Your task to perform on an android device: How far is the moon? Image 0: 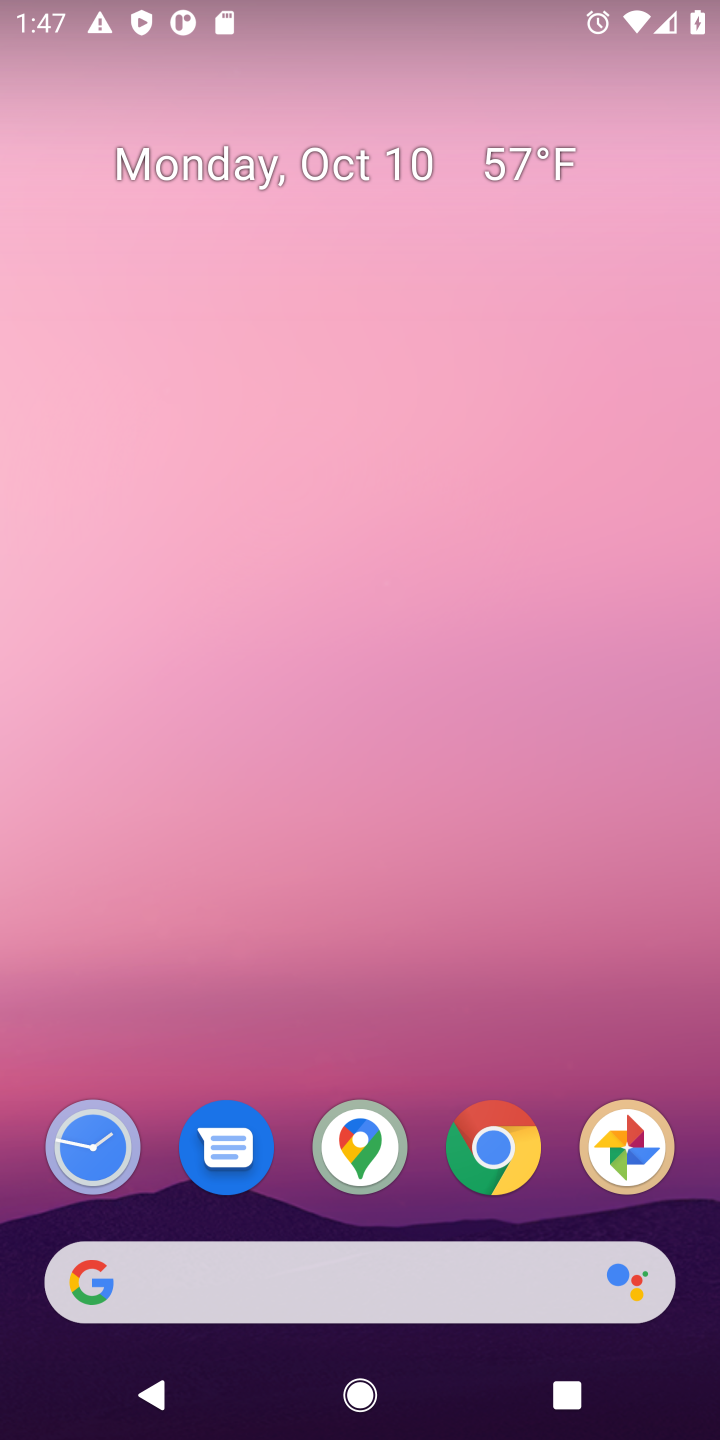
Step 0: click (390, 1267)
Your task to perform on an android device: How far is the moon? Image 1: 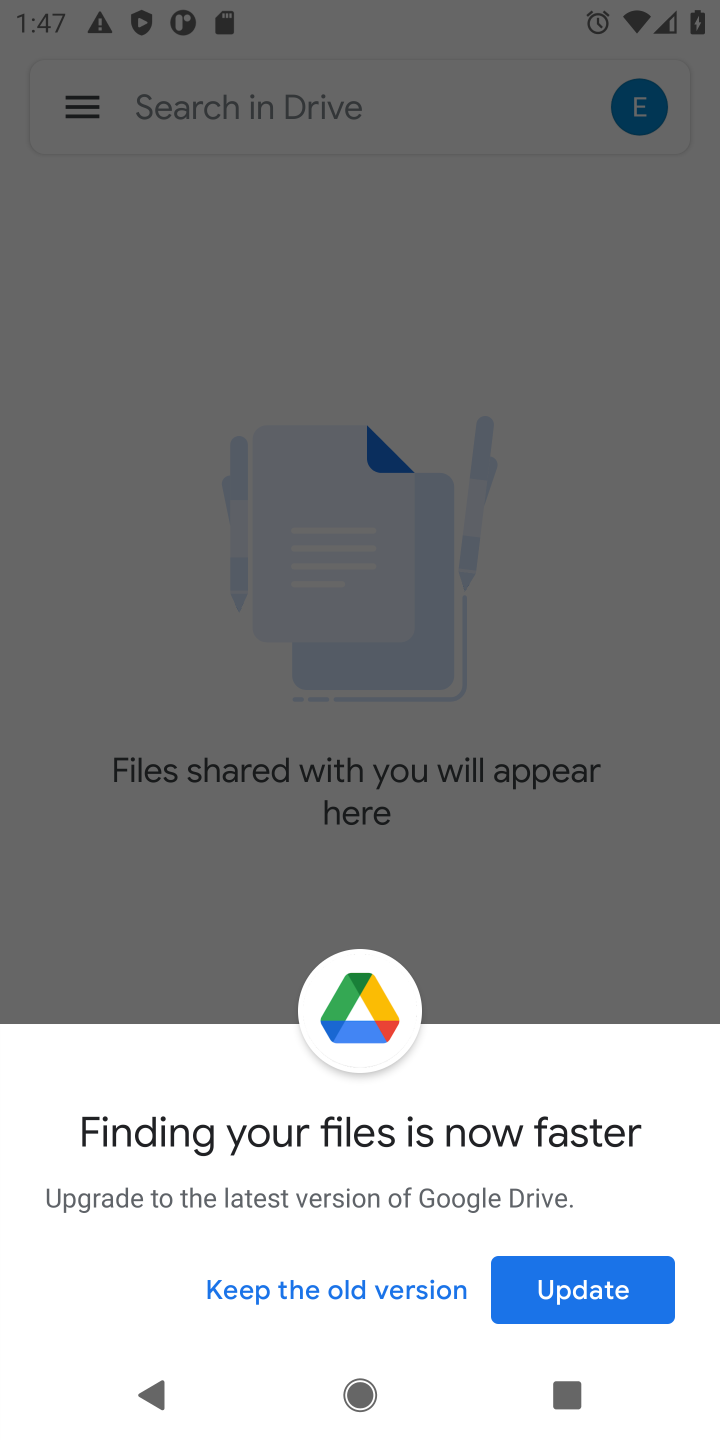
Step 1: press home button
Your task to perform on an android device: How far is the moon? Image 2: 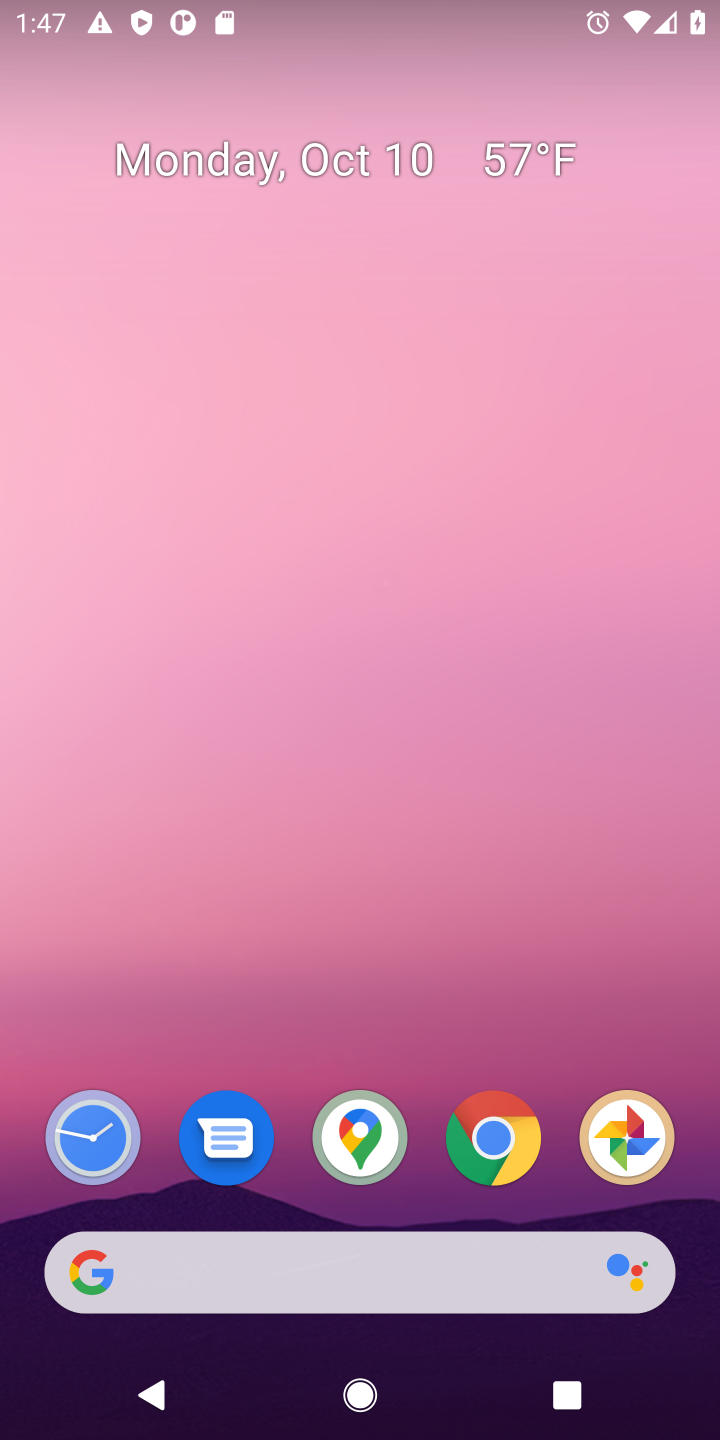
Step 2: click (325, 1278)
Your task to perform on an android device: How far is the moon? Image 3: 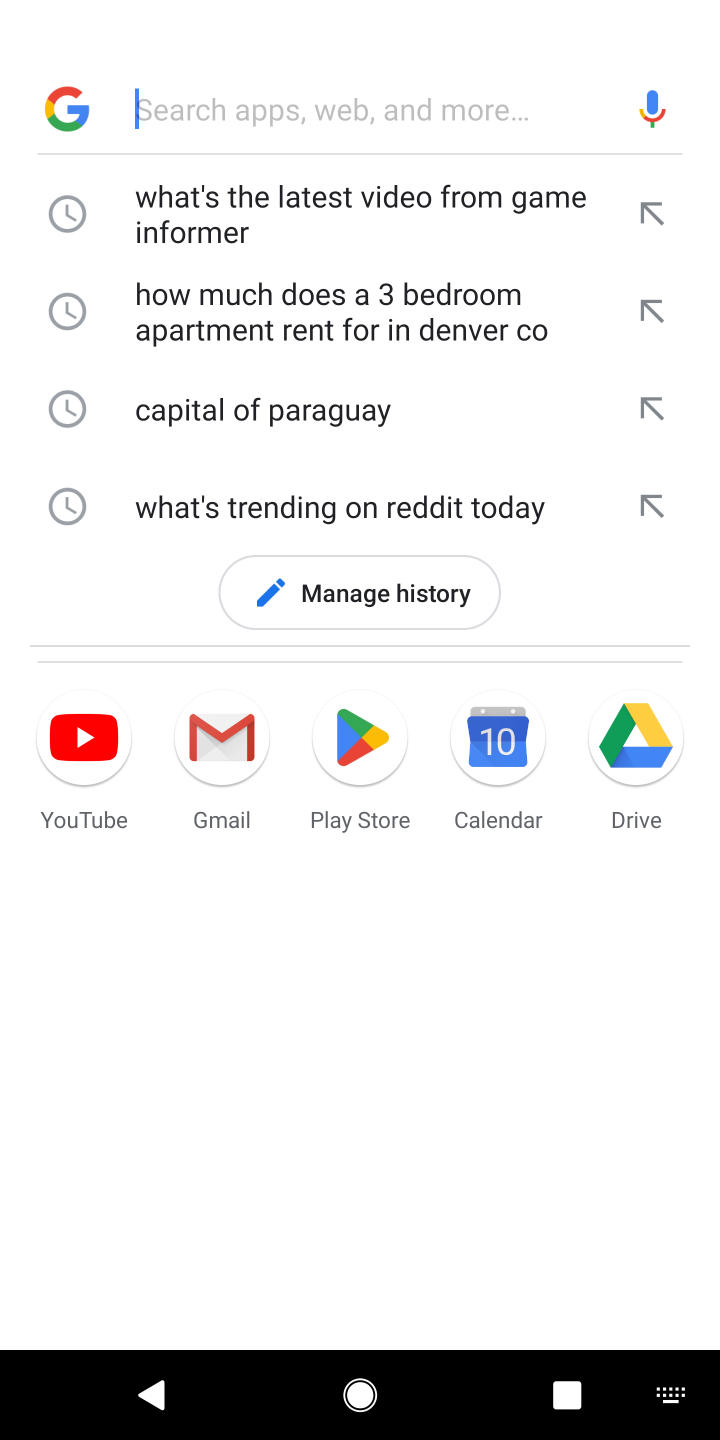
Step 3: type "how far is the moon?"
Your task to perform on an android device: How far is the moon? Image 4: 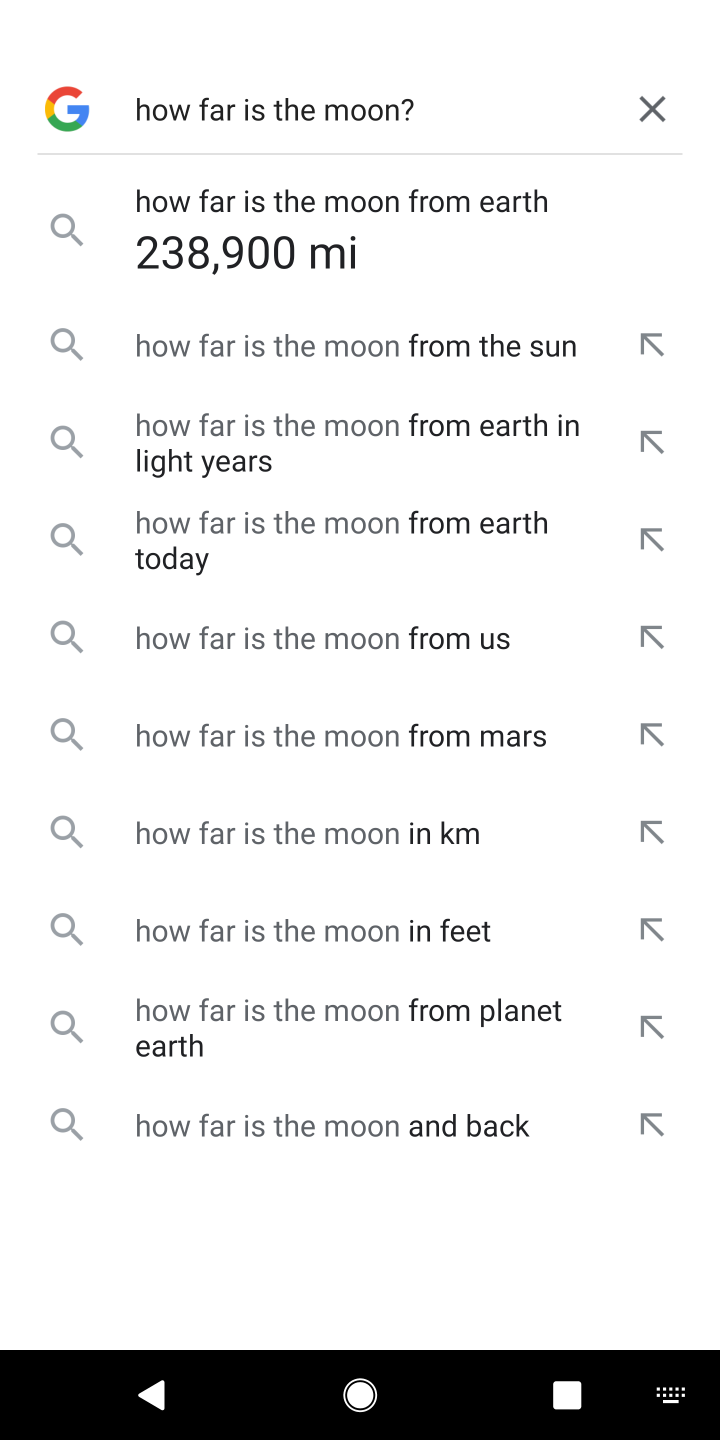
Step 4: click (276, 204)
Your task to perform on an android device: How far is the moon? Image 5: 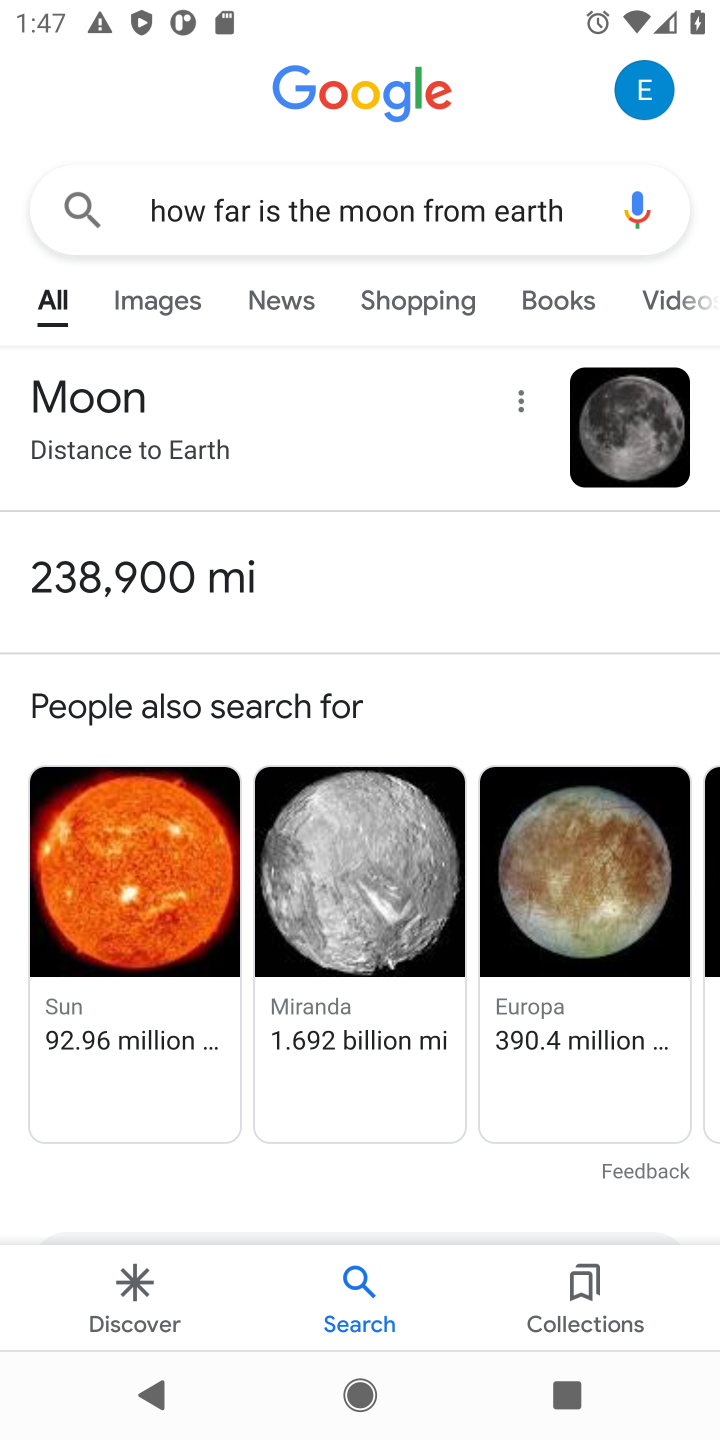
Step 5: task complete